Your task to perform on an android device: change the clock style Image 0: 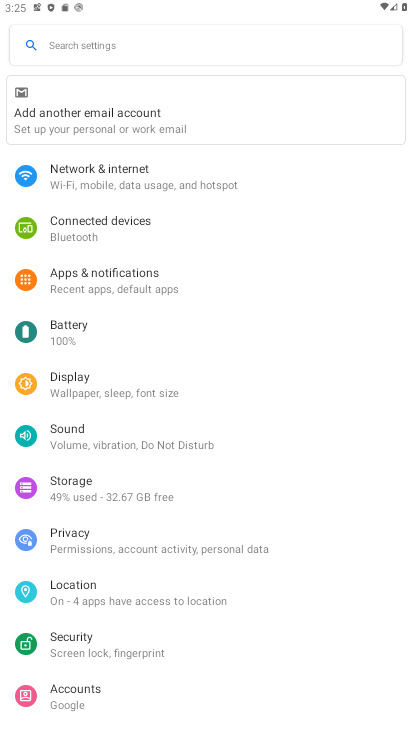
Step 0: press home button
Your task to perform on an android device: change the clock style Image 1: 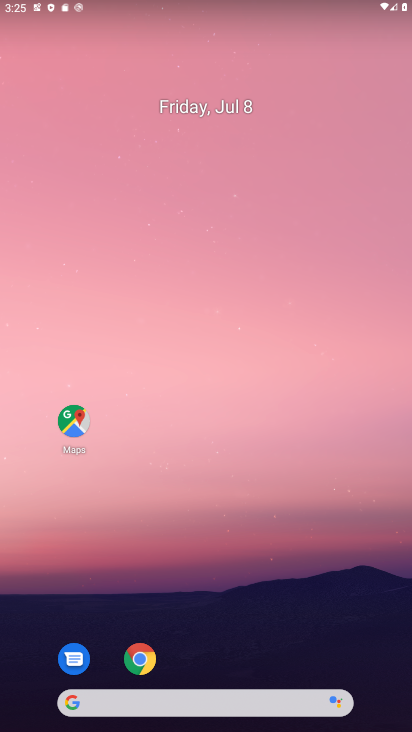
Step 1: drag from (194, 664) to (183, 215)
Your task to perform on an android device: change the clock style Image 2: 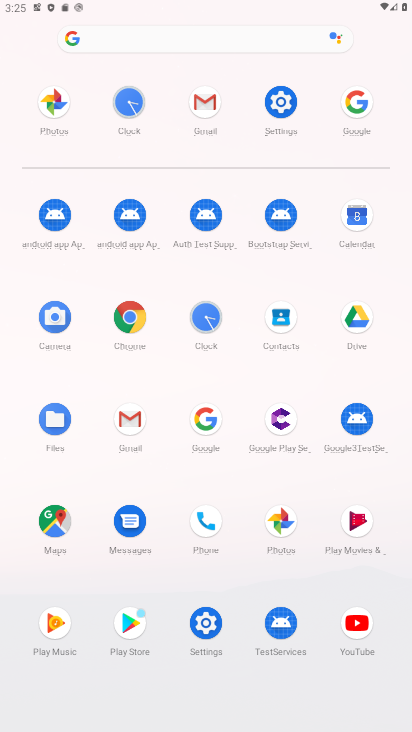
Step 2: click (119, 111)
Your task to perform on an android device: change the clock style Image 3: 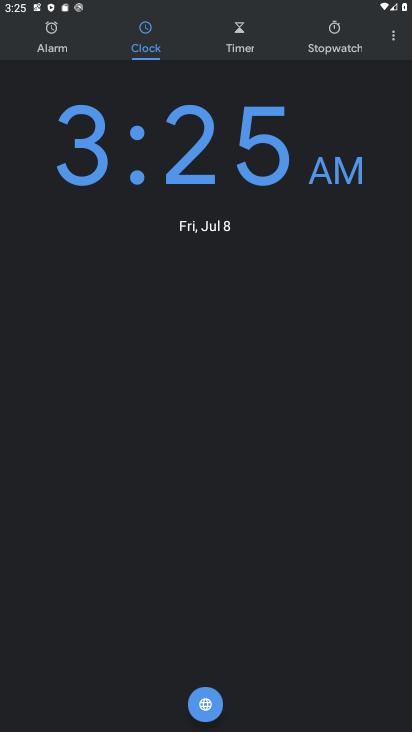
Step 3: click (400, 37)
Your task to perform on an android device: change the clock style Image 4: 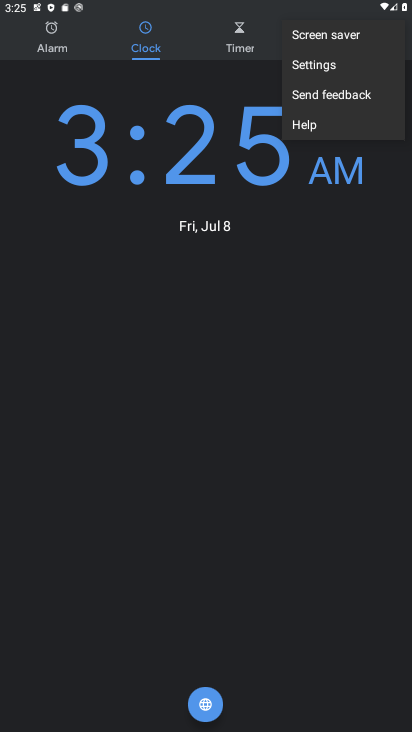
Step 4: click (358, 66)
Your task to perform on an android device: change the clock style Image 5: 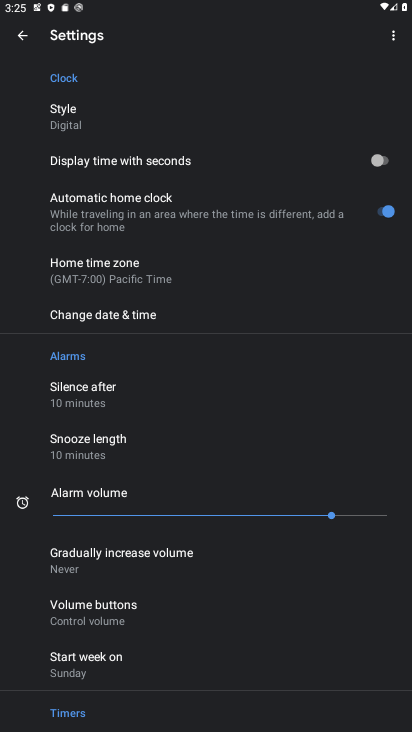
Step 5: click (106, 114)
Your task to perform on an android device: change the clock style Image 6: 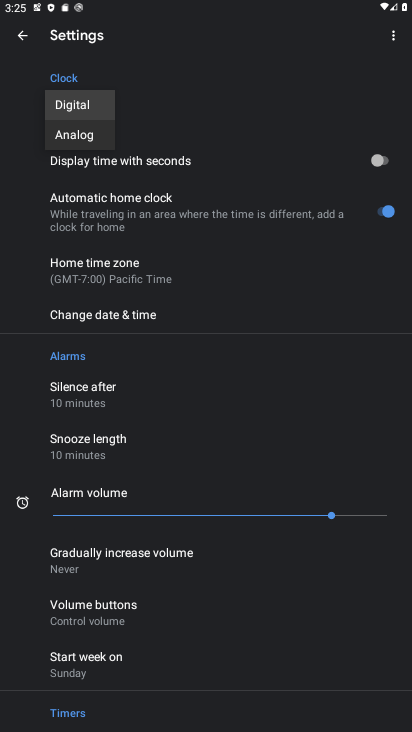
Step 6: click (72, 138)
Your task to perform on an android device: change the clock style Image 7: 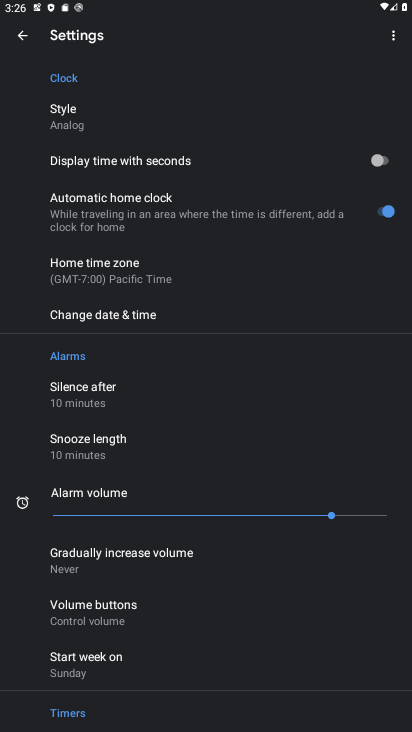
Step 7: task complete